Your task to perform on an android device: open chrome and create a bookmark for the current page Image 0: 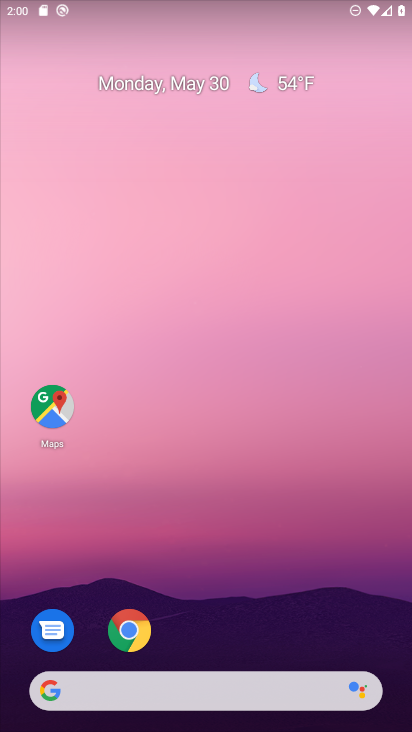
Step 0: click (133, 647)
Your task to perform on an android device: open chrome and create a bookmark for the current page Image 1: 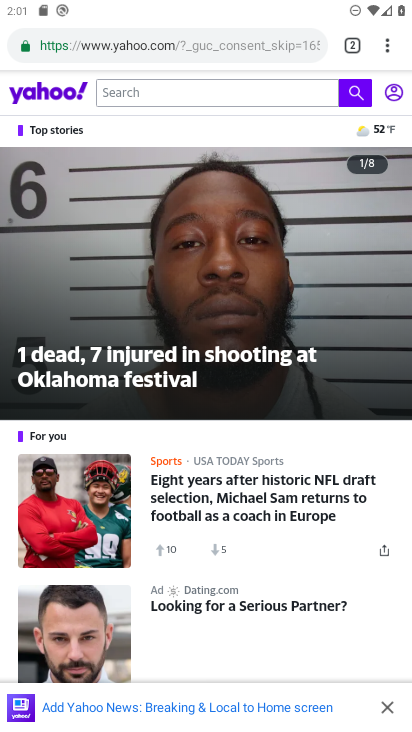
Step 1: task complete